Your task to perform on an android device: open a new tab in the chrome app Image 0: 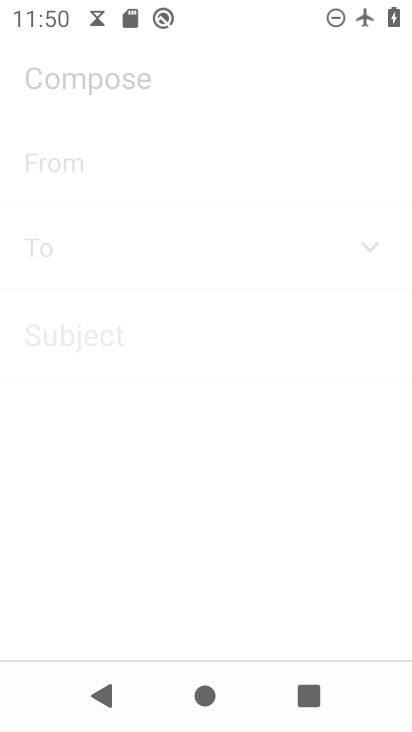
Step 0: drag from (359, 535) to (275, 247)
Your task to perform on an android device: open a new tab in the chrome app Image 1: 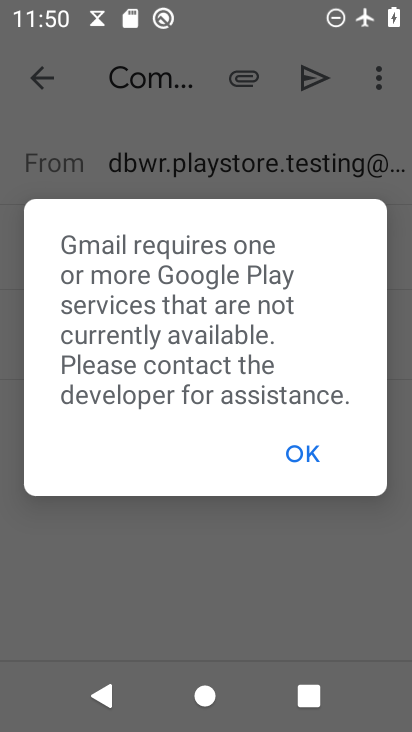
Step 1: press back button
Your task to perform on an android device: open a new tab in the chrome app Image 2: 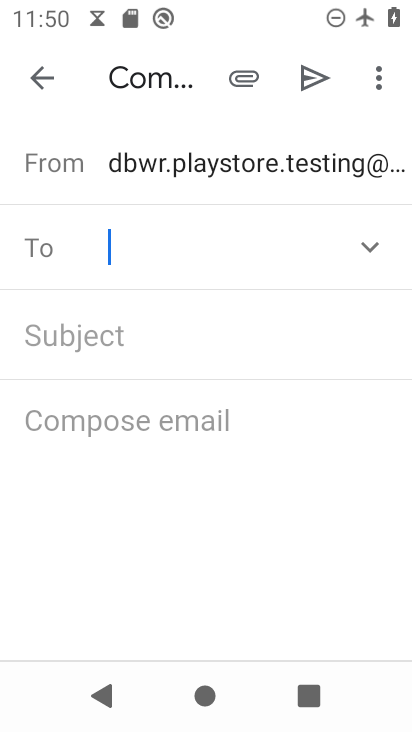
Step 2: press back button
Your task to perform on an android device: open a new tab in the chrome app Image 3: 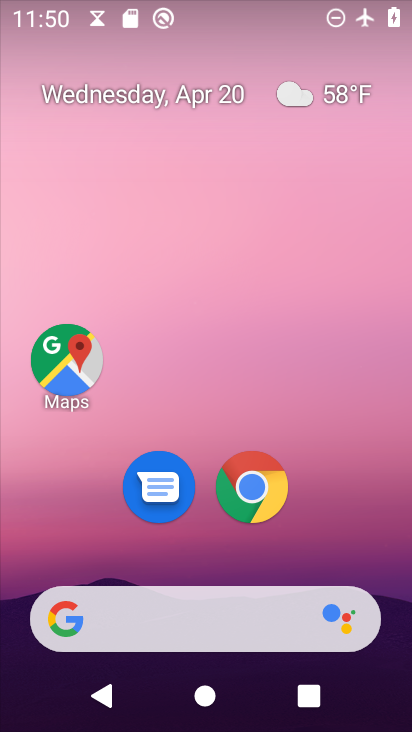
Step 3: drag from (365, 535) to (268, 66)
Your task to perform on an android device: open a new tab in the chrome app Image 4: 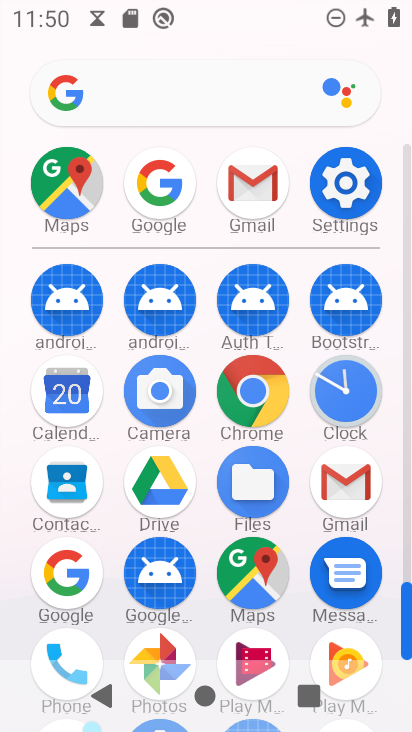
Step 4: drag from (9, 455) to (9, 222)
Your task to perform on an android device: open a new tab in the chrome app Image 5: 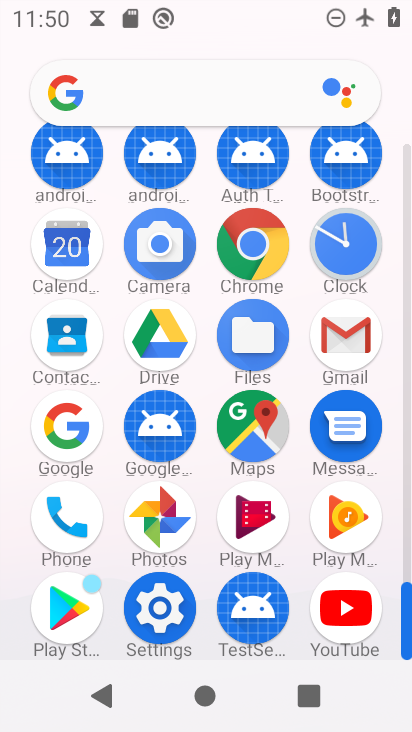
Step 5: click (250, 243)
Your task to perform on an android device: open a new tab in the chrome app Image 6: 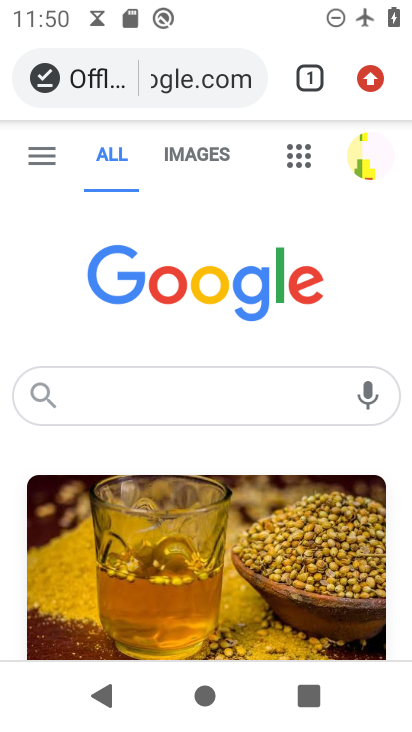
Step 6: click (363, 86)
Your task to perform on an android device: open a new tab in the chrome app Image 7: 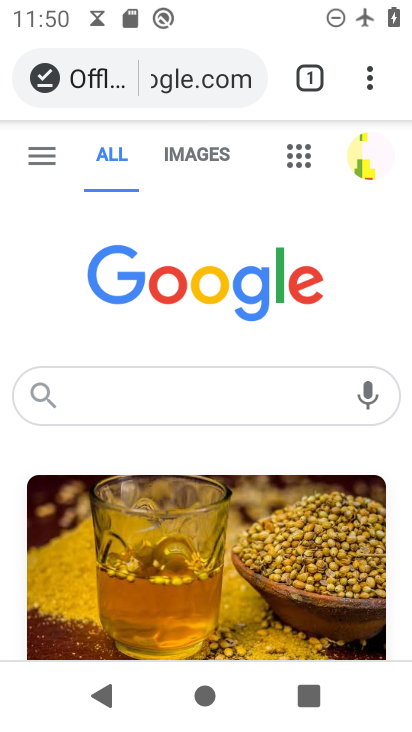
Step 7: click (363, 86)
Your task to perform on an android device: open a new tab in the chrome app Image 8: 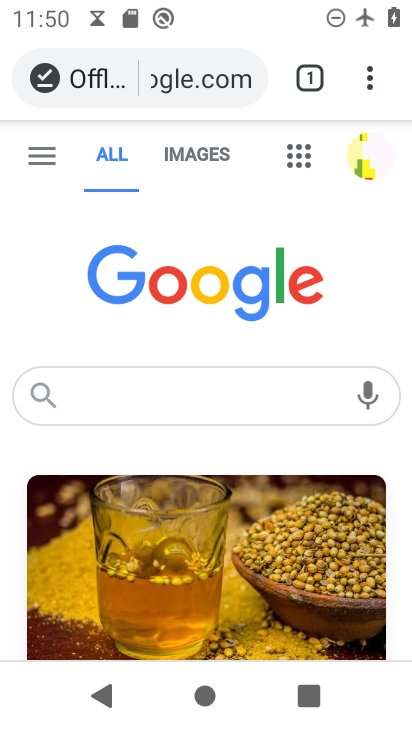
Step 8: task complete